Your task to perform on an android device: open app "ZOOM Cloud Meetings" (install if not already installed), go to login, and select forgot password Image 0: 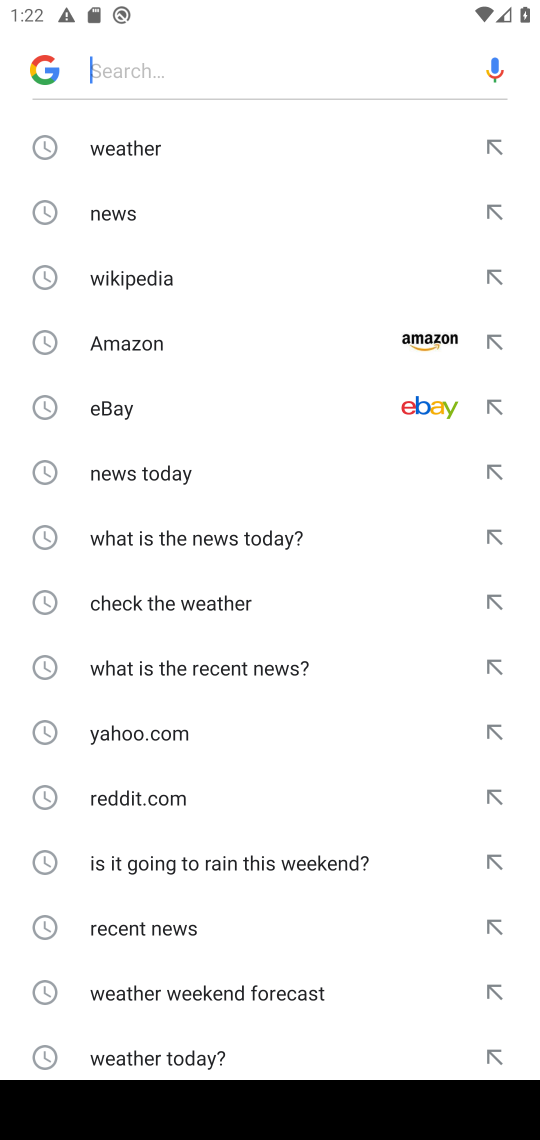
Step 0: press home button
Your task to perform on an android device: open app "ZOOM Cloud Meetings" (install if not already installed), go to login, and select forgot password Image 1: 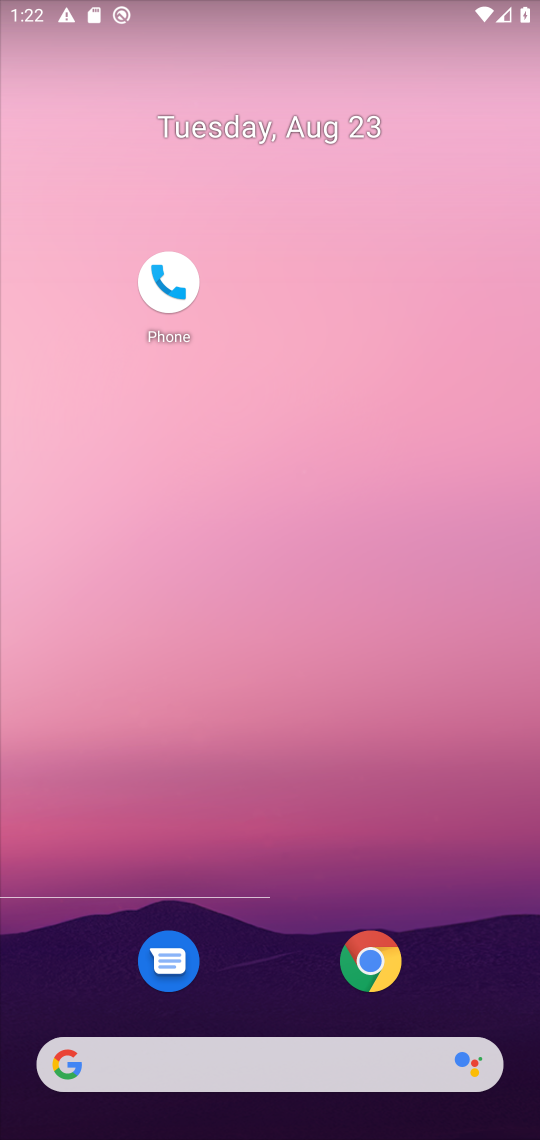
Step 1: drag from (271, 956) to (336, 196)
Your task to perform on an android device: open app "ZOOM Cloud Meetings" (install if not already installed), go to login, and select forgot password Image 2: 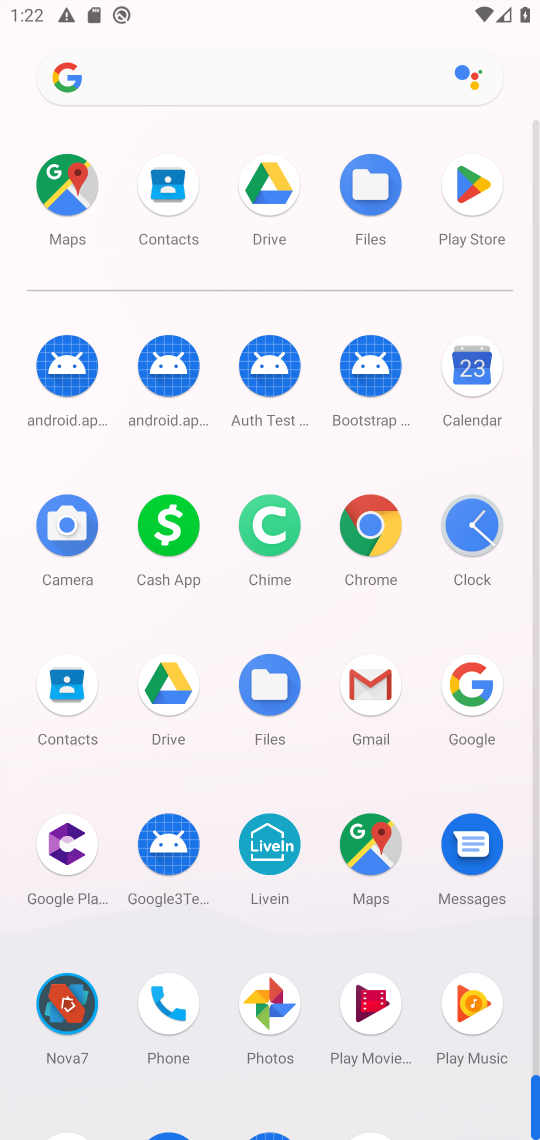
Step 2: click (467, 196)
Your task to perform on an android device: open app "ZOOM Cloud Meetings" (install if not already installed), go to login, and select forgot password Image 3: 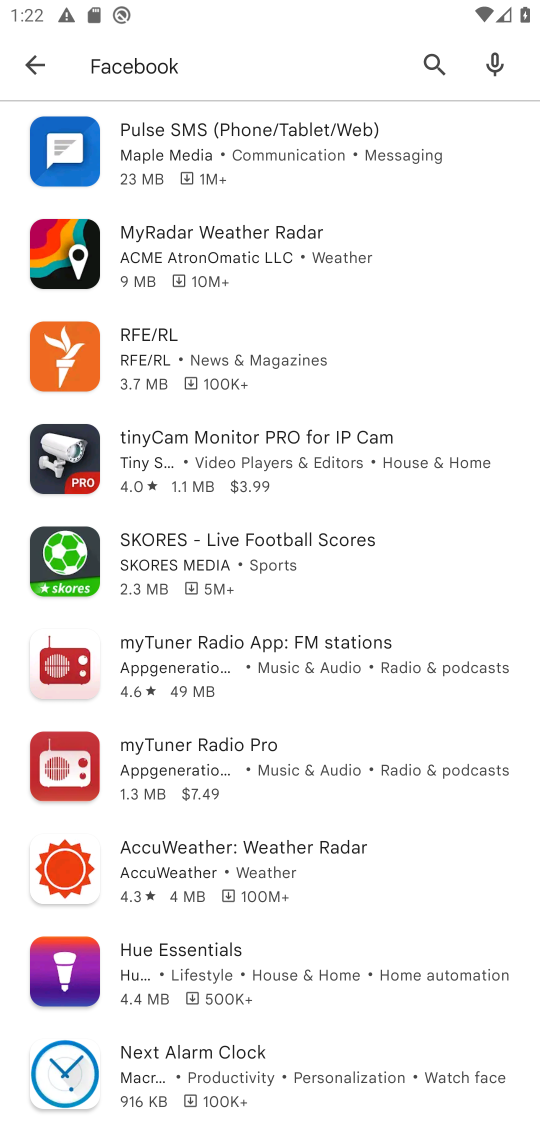
Step 3: click (420, 87)
Your task to perform on an android device: open app "ZOOM Cloud Meetings" (install if not already installed), go to login, and select forgot password Image 4: 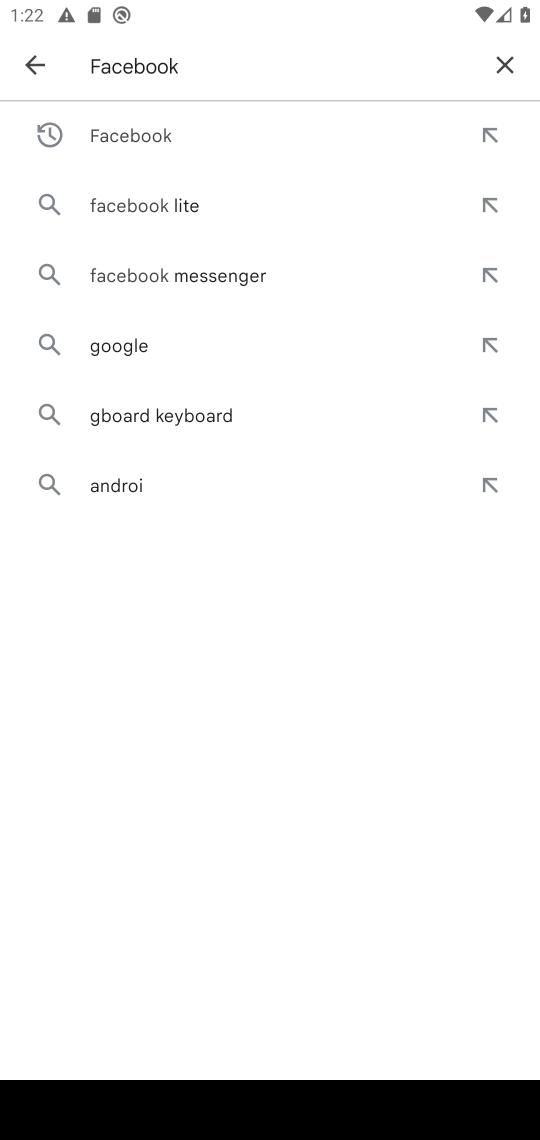
Step 4: click (504, 76)
Your task to perform on an android device: open app "ZOOM Cloud Meetings" (install if not already installed), go to login, and select forgot password Image 5: 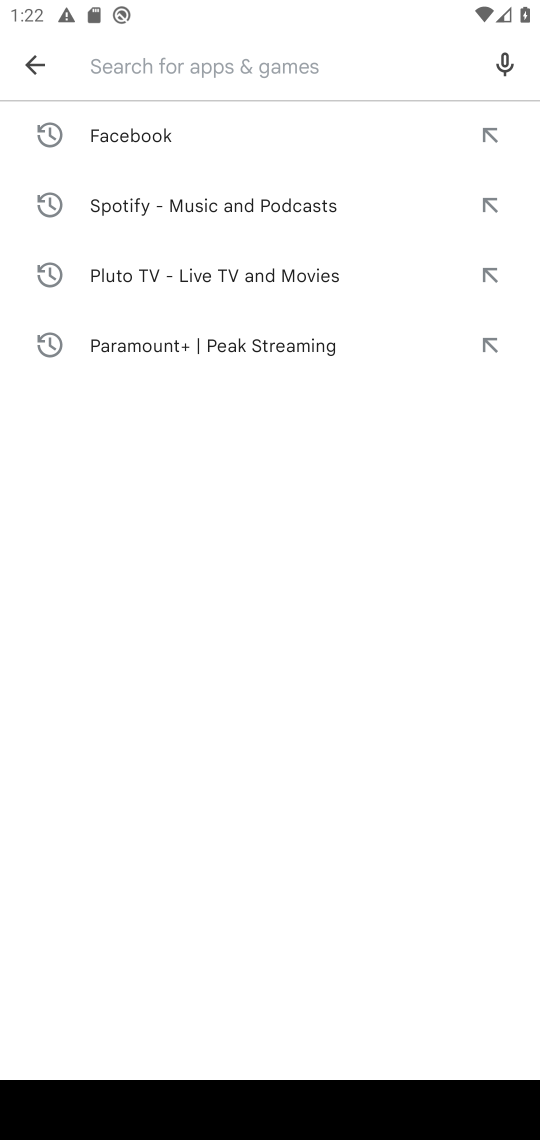
Step 5: type "zoom"
Your task to perform on an android device: open app "ZOOM Cloud Meetings" (install if not already installed), go to login, and select forgot password Image 6: 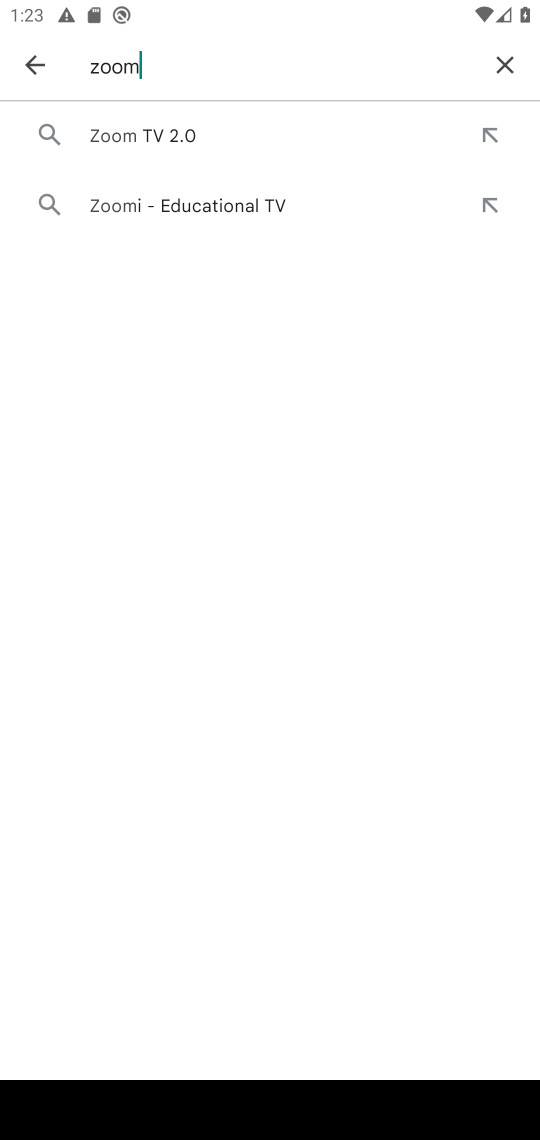
Step 6: task complete